Your task to perform on an android device: turn on showing notifications on the lock screen Image 0: 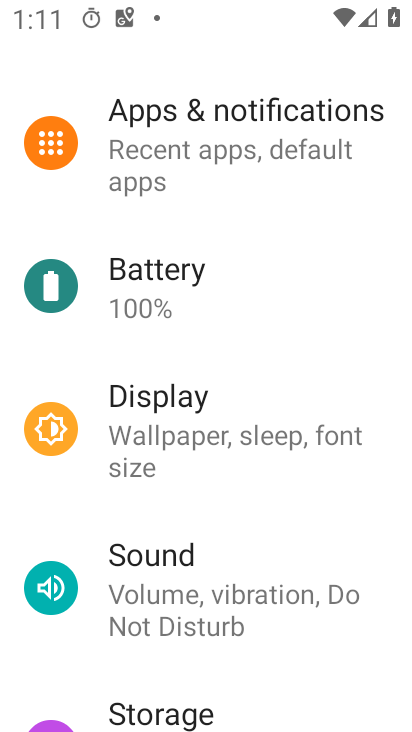
Step 0: press home button
Your task to perform on an android device: turn on showing notifications on the lock screen Image 1: 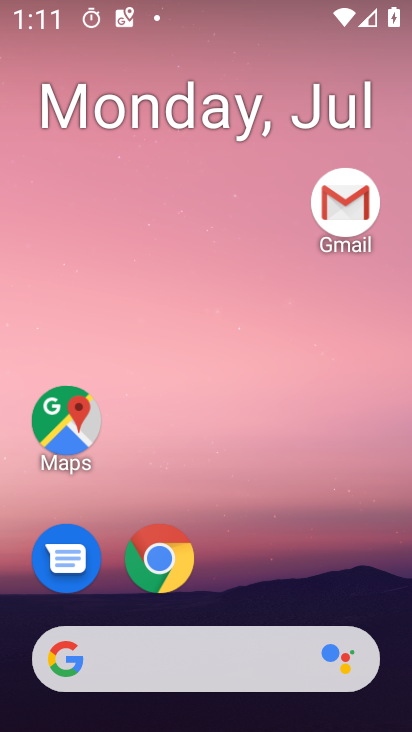
Step 1: drag from (341, 570) to (353, 69)
Your task to perform on an android device: turn on showing notifications on the lock screen Image 2: 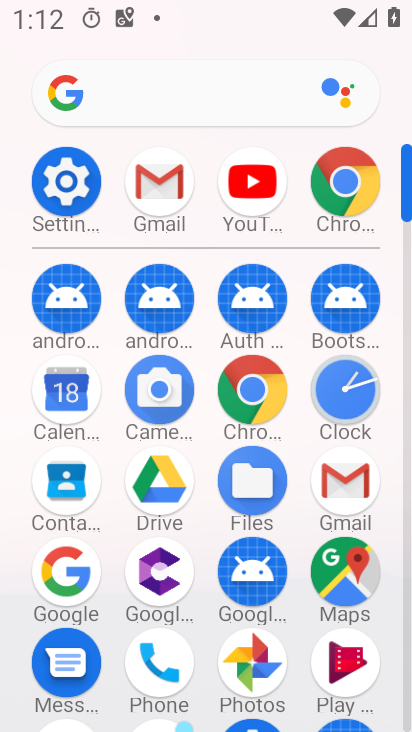
Step 2: click (62, 186)
Your task to perform on an android device: turn on showing notifications on the lock screen Image 3: 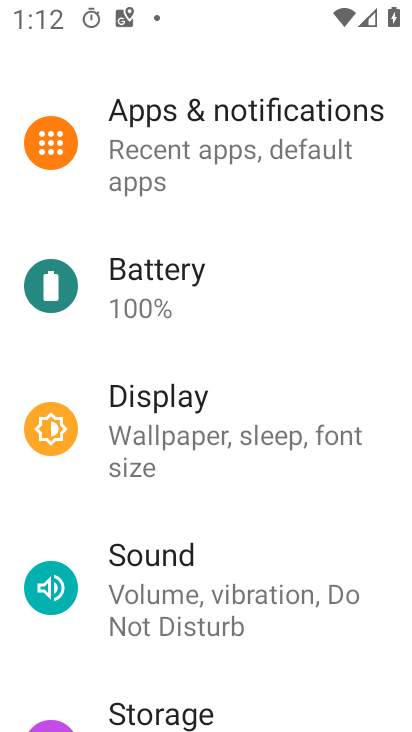
Step 3: drag from (374, 232) to (368, 311)
Your task to perform on an android device: turn on showing notifications on the lock screen Image 4: 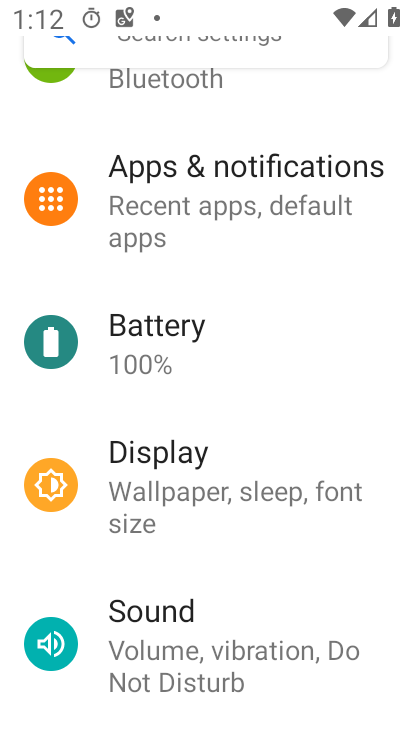
Step 4: drag from (379, 206) to (377, 303)
Your task to perform on an android device: turn on showing notifications on the lock screen Image 5: 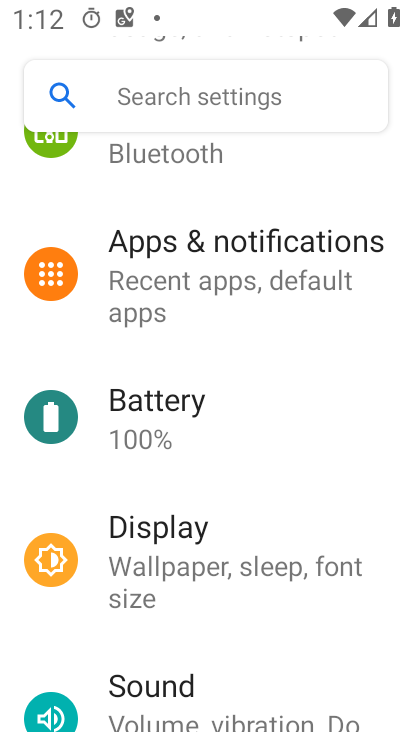
Step 5: drag from (376, 201) to (371, 300)
Your task to perform on an android device: turn on showing notifications on the lock screen Image 6: 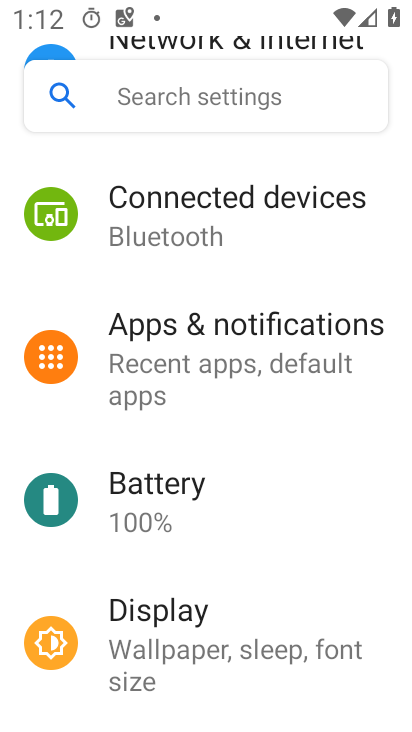
Step 6: drag from (381, 198) to (381, 291)
Your task to perform on an android device: turn on showing notifications on the lock screen Image 7: 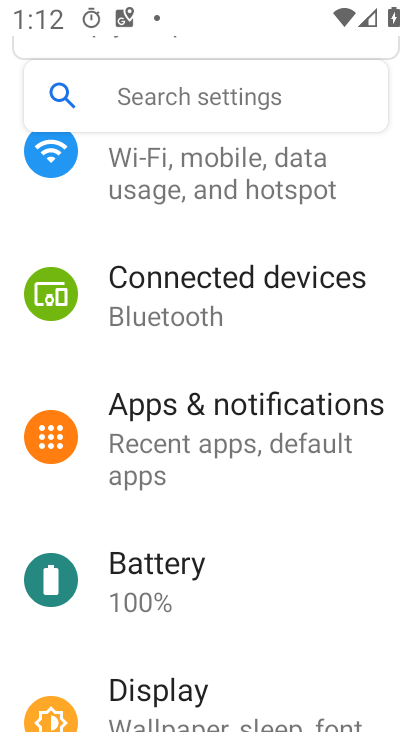
Step 7: drag from (380, 192) to (381, 292)
Your task to perform on an android device: turn on showing notifications on the lock screen Image 8: 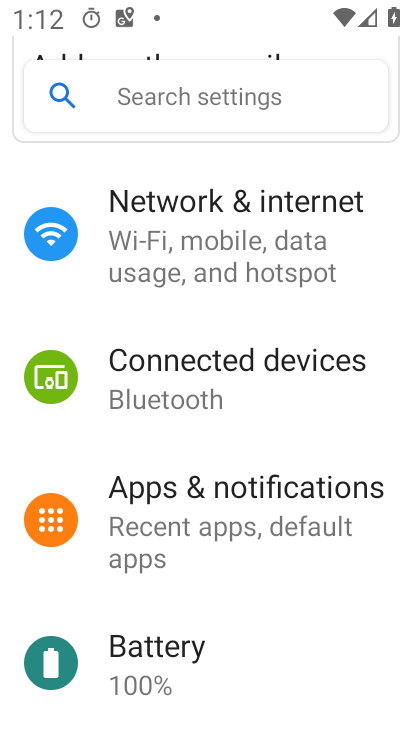
Step 8: drag from (388, 180) to (391, 424)
Your task to perform on an android device: turn on showing notifications on the lock screen Image 9: 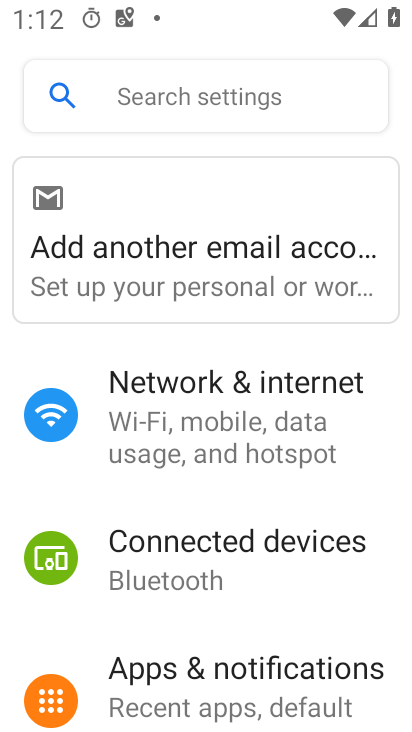
Step 9: drag from (295, 572) to (303, 461)
Your task to perform on an android device: turn on showing notifications on the lock screen Image 10: 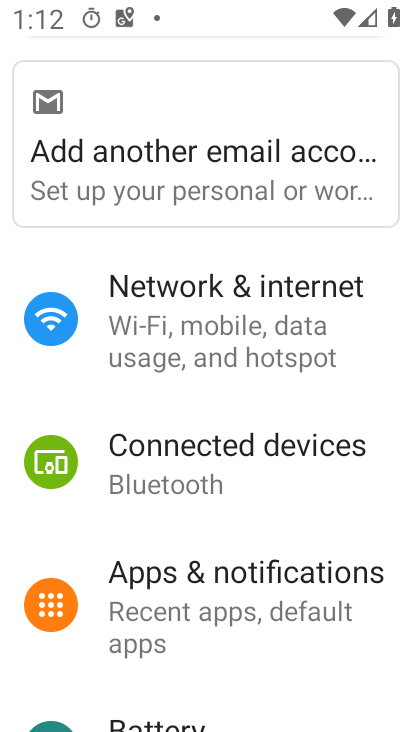
Step 10: drag from (291, 520) to (301, 411)
Your task to perform on an android device: turn on showing notifications on the lock screen Image 11: 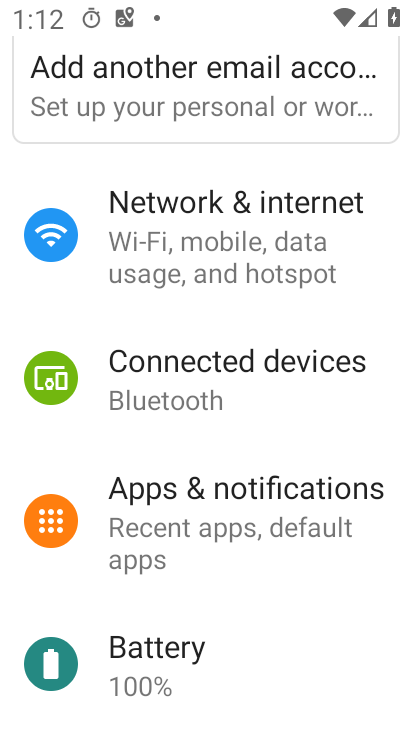
Step 11: drag from (288, 577) to (299, 453)
Your task to perform on an android device: turn on showing notifications on the lock screen Image 12: 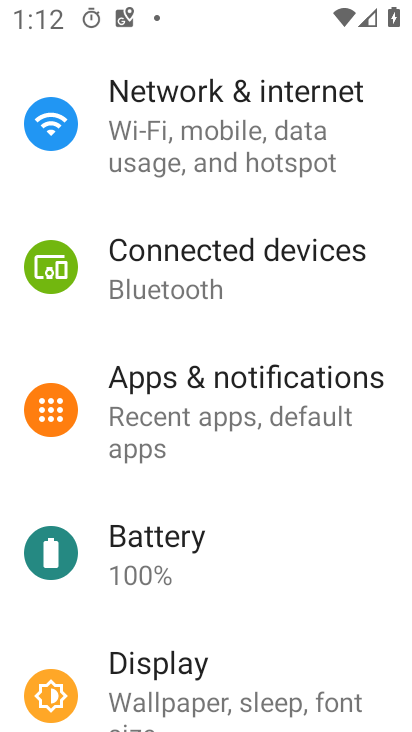
Step 12: drag from (317, 531) to (319, 431)
Your task to perform on an android device: turn on showing notifications on the lock screen Image 13: 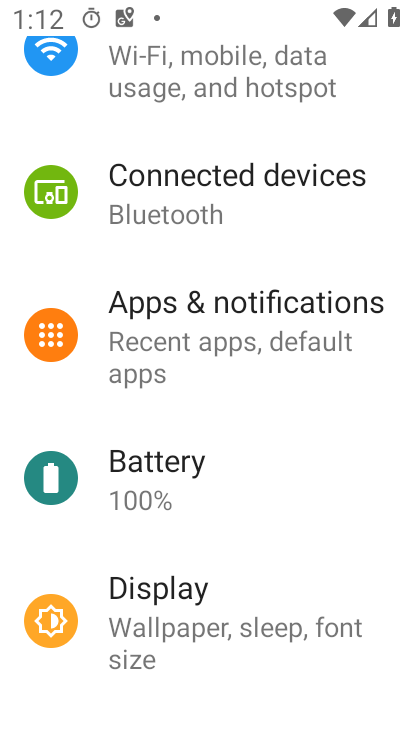
Step 13: click (300, 345)
Your task to perform on an android device: turn on showing notifications on the lock screen Image 14: 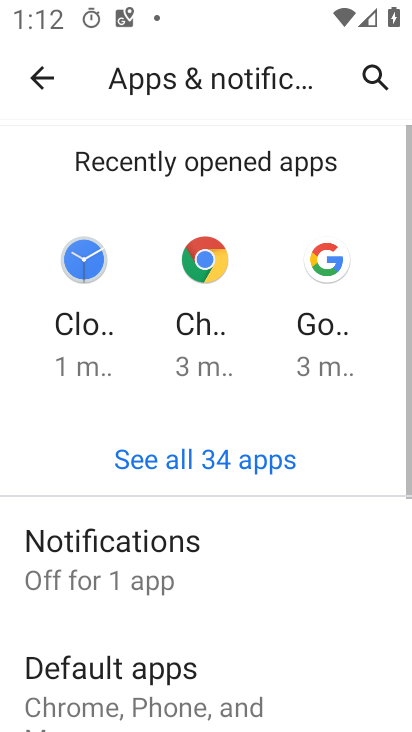
Step 14: drag from (304, 544) to (318, 465)
Your task to perform on an android device: turn on showing notifications on the lock screen Image 15: 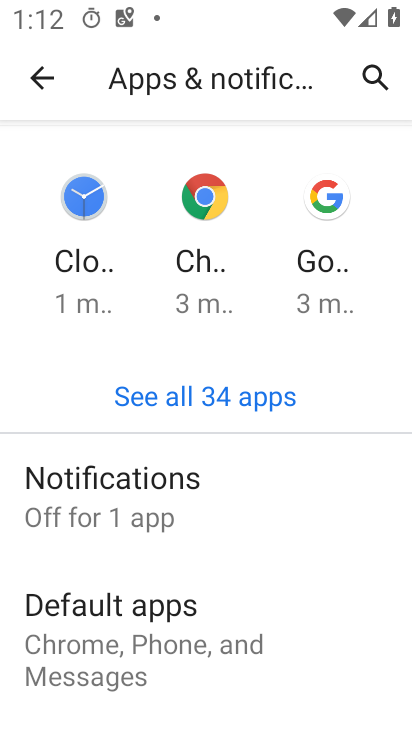
Step 15: drag from (312, 540) to (312, 456)
Your task to perform on an android device: turn on showing notifications on the lock screen Image 16: 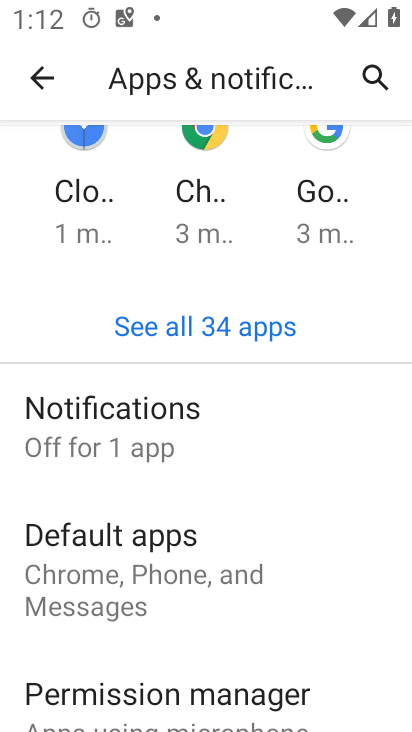
Step 16: drag from (303, 568) to (305, 476)
Your task to perform on an android device: turn on showing notifications on the lock screen Image 17: 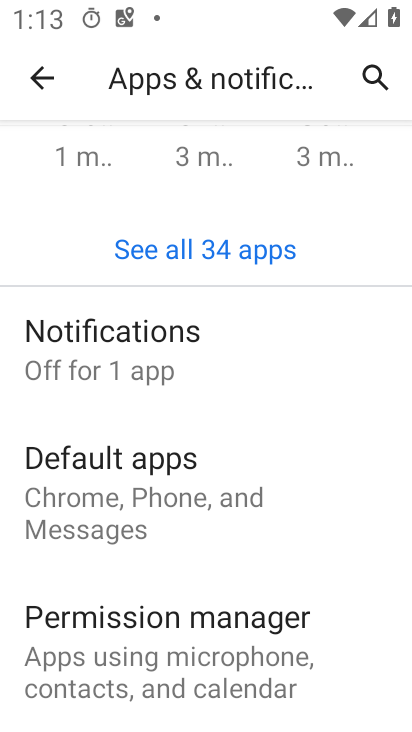
Step 17: drag from (292, 518) to (303, 405)
Your task to perform on an android device: turn on showing notifications on the lock screen Image 18: 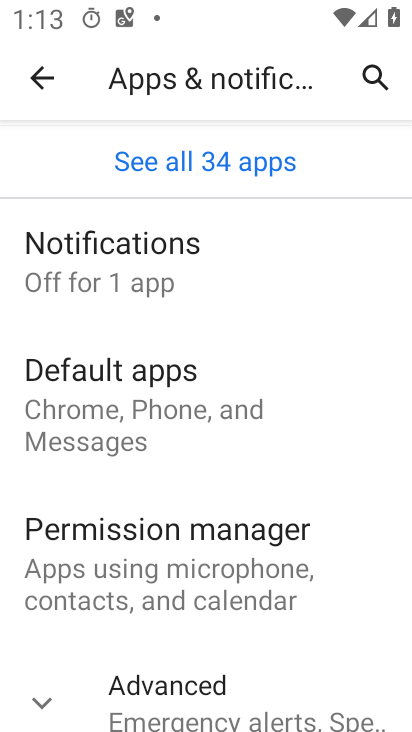
Step 18: click (211, 281)
Your task to perform on an android device: turn on showing notifications on the lock screen Image 19: 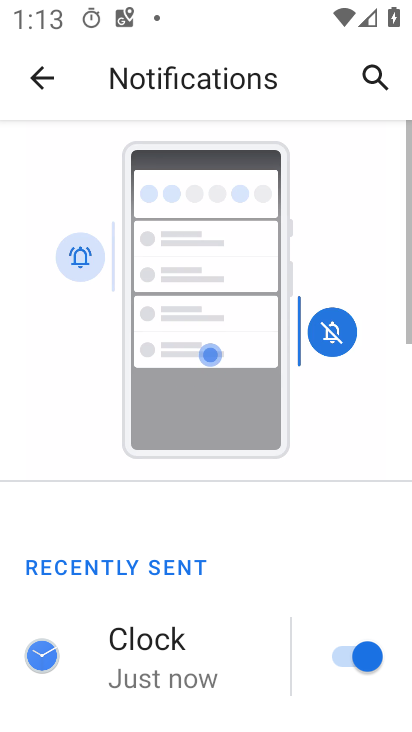
Step 19: drag from (306, 504) to (319, 407)
Your task to perform on an android device: turn on showing notifications on the lock screen Image 20: 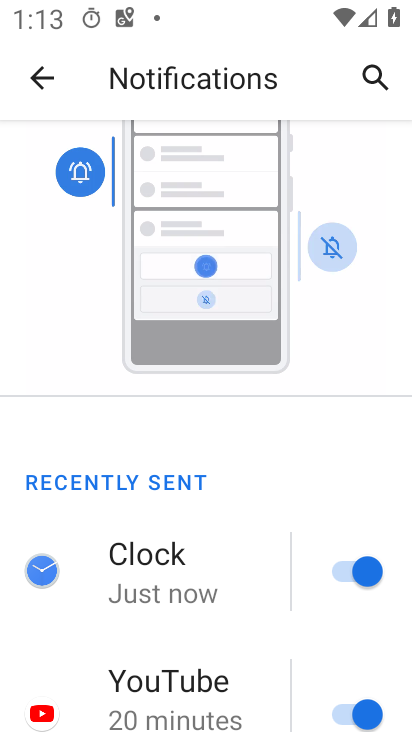
Step 20: drag from (234, 536) to (243, 422)
Your task to perform on an android device: turn on showing notifications on the lock screen Image 21: 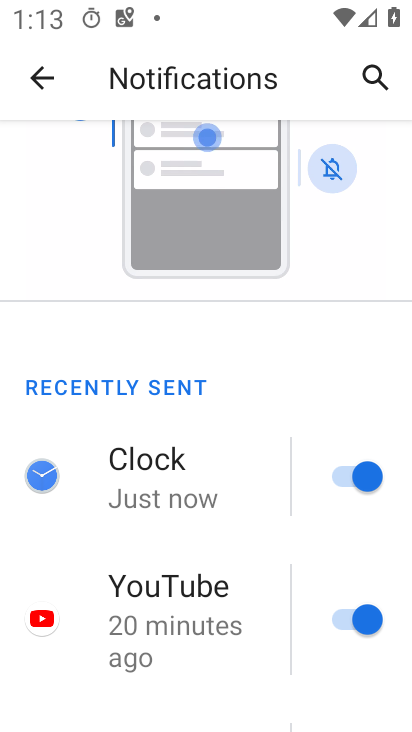
Step 21: drag from (251, 561) to (252, 421)
Your task to perform on an android device: turn on showing notifications on the lock screen Image 22: 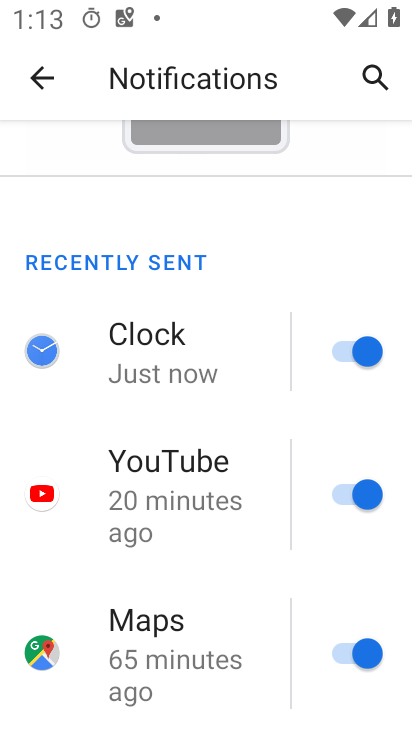
Step 22: drag from (230, 561) to (230, 468)
Your task to perform on an android device: turn on showing notifications on the lock screen Image 23: 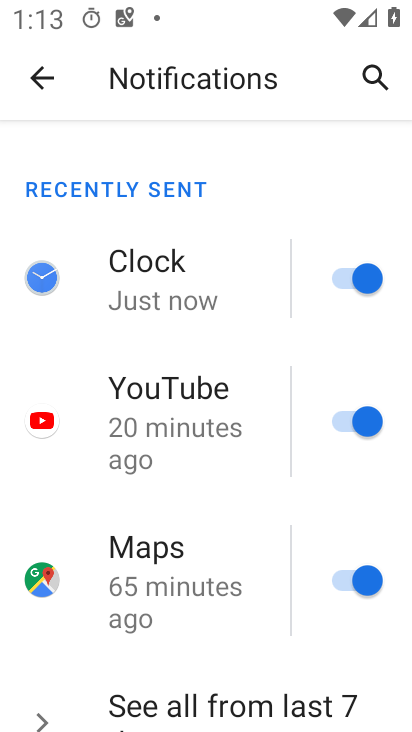
Step 23: drag from (237, 620) to (246, 494)
Your task to perform on an android device: turn on showing notifications on the lock screen Image 24: 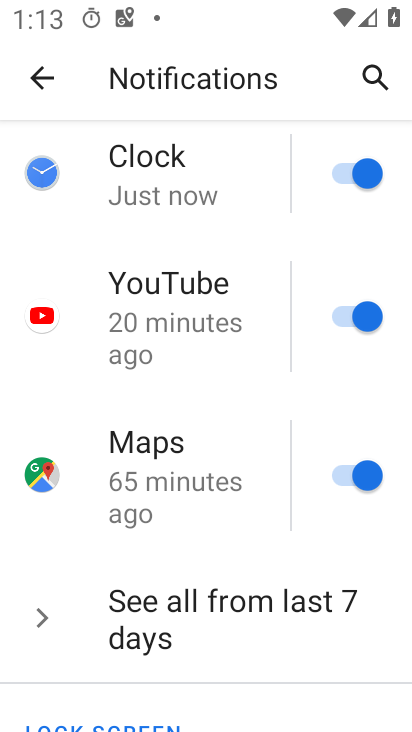
Step 24: drag from (242, 612) to (241, 504)
Your task to perform on an android device: turn on showing notifications on the lock screen Image 25: 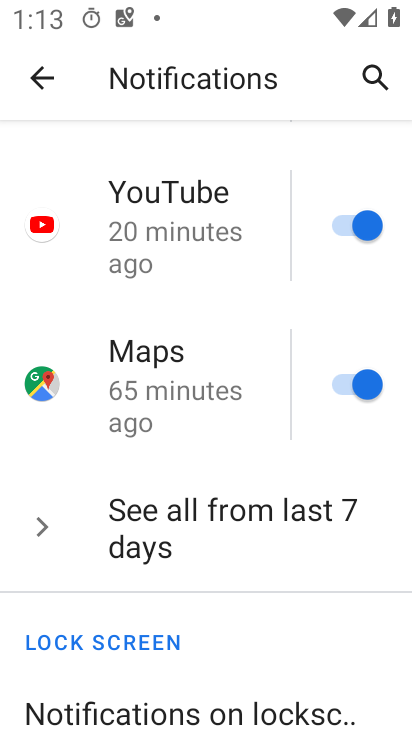
Step 25: drag from (257, 591) to (255, 467)
Your task to perform on an android device: turn on showing notifications on the lock screen Image 26: 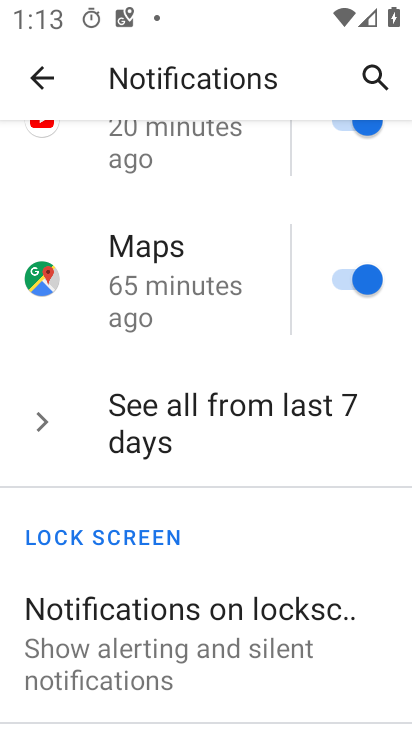
Step 26: drag from (250, 614) to (258, 463)
Your task to perform on an android device: turn on showing notifications on the lock screen Image 27: 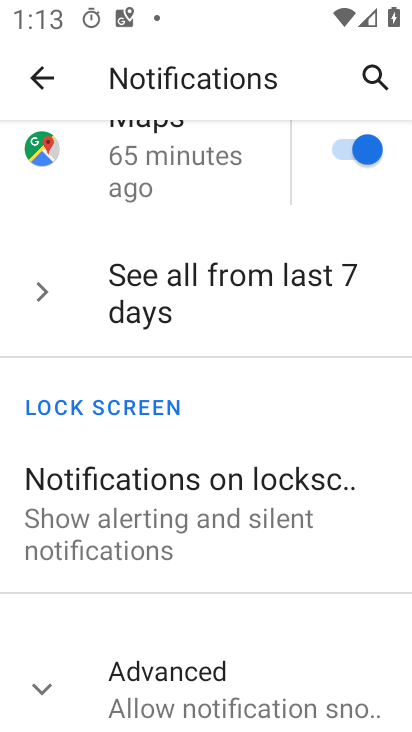
Step 27: click (254, 545)
Your task to perform on an android device: turn on showing notifications on the lock screen Image 28: 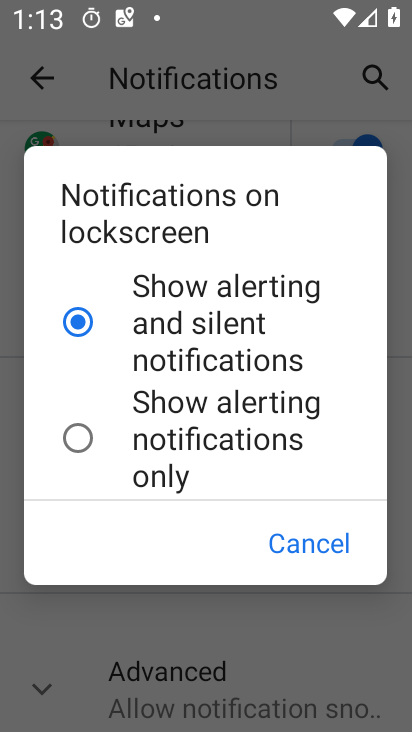
Step 28: task complete